Your task to perform on an android device: see creations saved in the google photos Image 0: 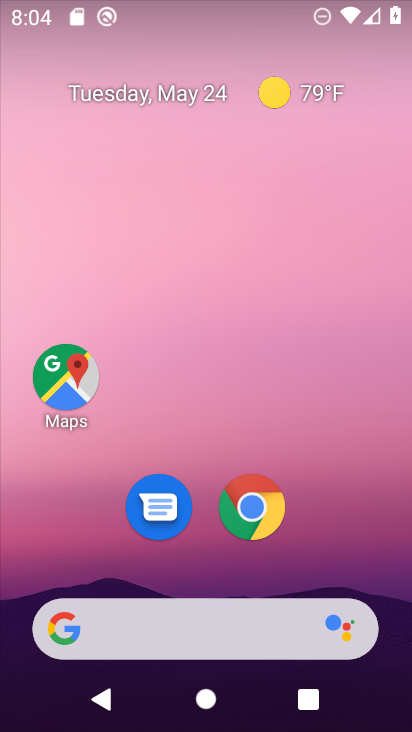
Step 0: drag from (334, 552) to (262, 19)
Your task to perform on an android device: see creations saved in the google photos Image 1: 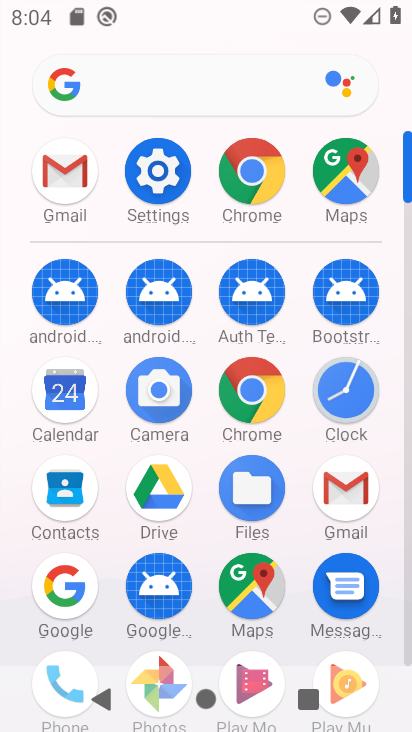
Step 1: drag from (2, 564) to (19, 230)
Your task to perform on an android device: see creations saved in the google photos Image 2: 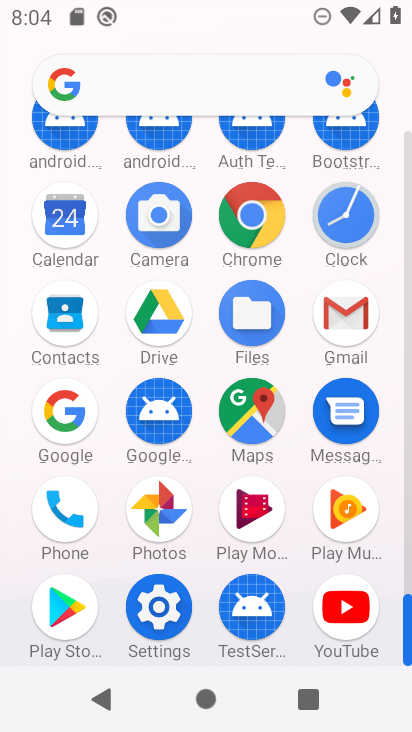
Step 2: click (161, 507)
Your task to perform on an android device: see creations saved in the google photos Image 3: 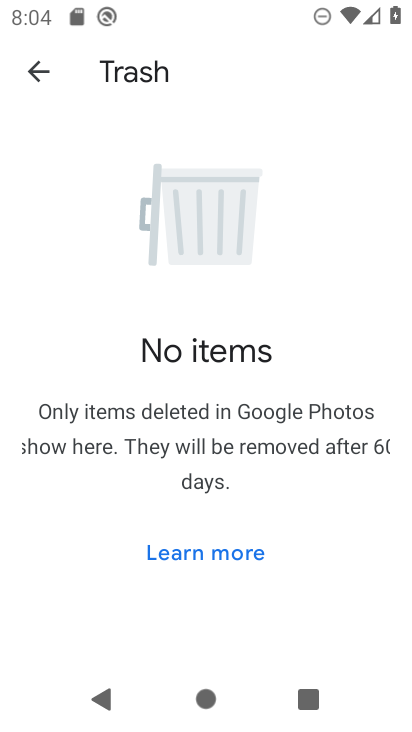
Step 3: click (33, 62)
Your task to perform on an android device: see creations saved in the google photos Image 4: 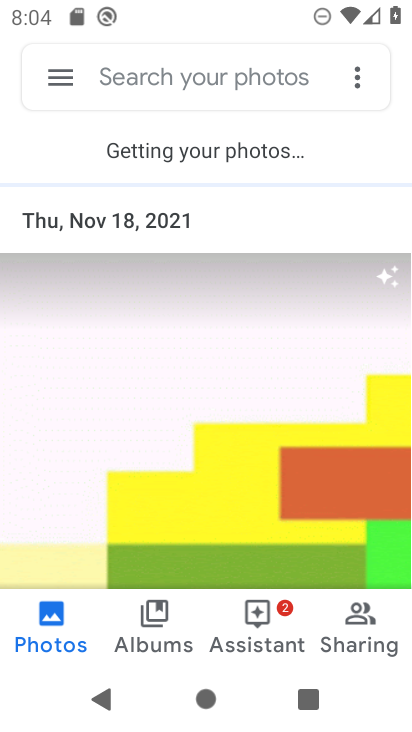
Step 4: task complete